Your task to perform on an android device: stop showing notifications on the lock screen Image 0: 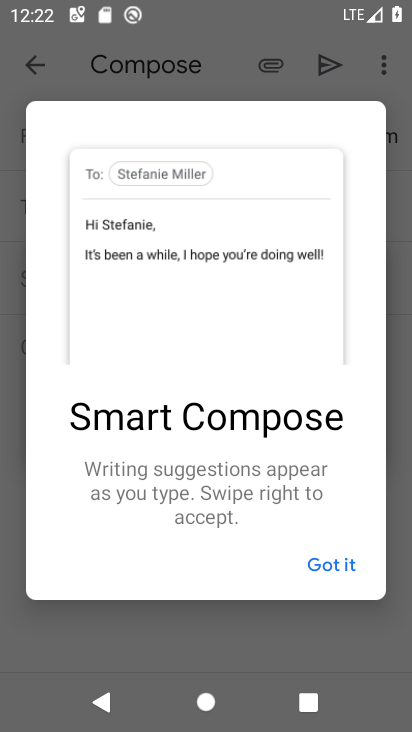
Step 0: press home button
Your task to perform on an android device: stop showing notifications on the lock screen Image 1: 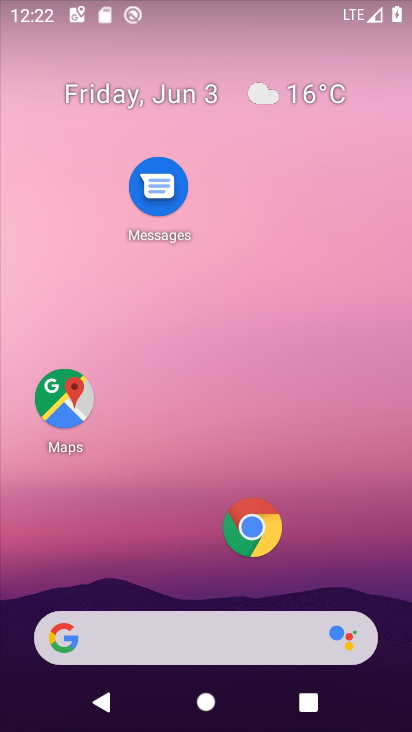
Step 1: drag from (208, 585) to (250, 53)
Your task to perform on an android device: stop showing notifications on the lock screen Image 2: 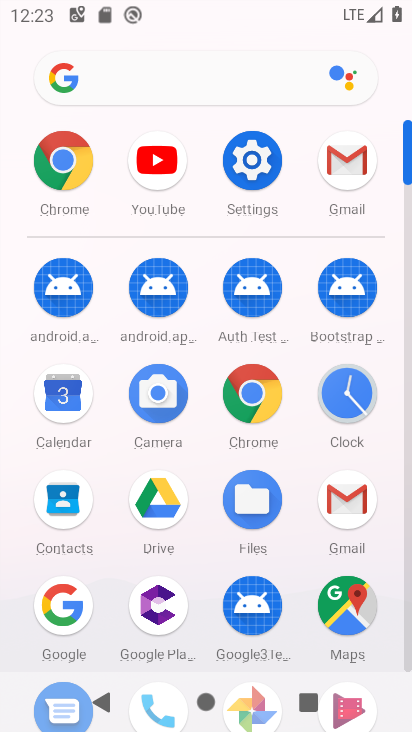
Step 2: click (252, 151)
Your task to perform on an android device: stop showing notifications on the lock screen Image 3: 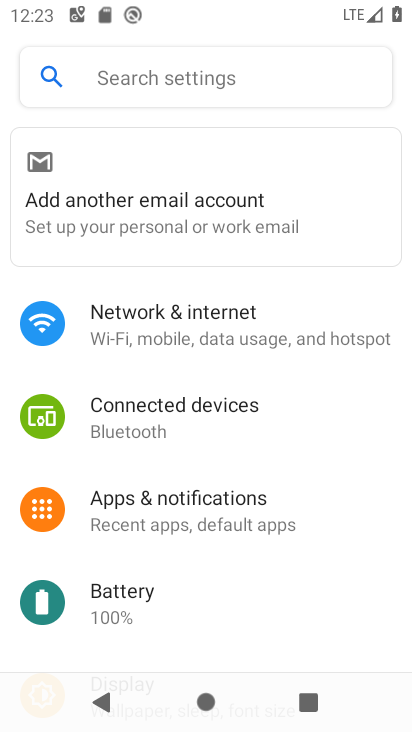
Step 3: click (282, 507)
Your task to perform on an android device: stop showing notifications on the lock screen Image 4: 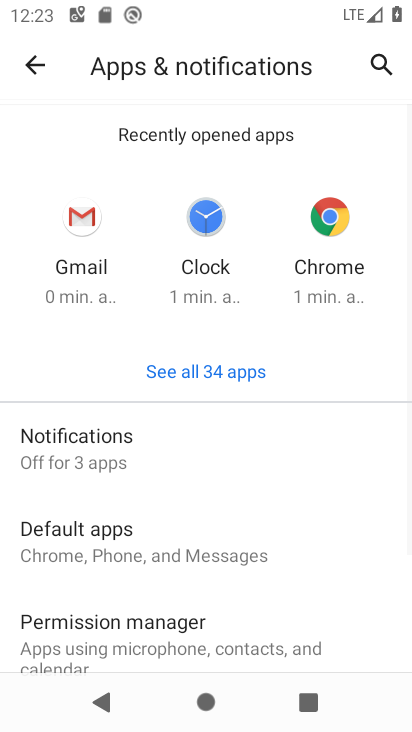
Step 4: click (148, 446)
Your task to perform on an android device: stop showing notifications on the lock screen Image 5: 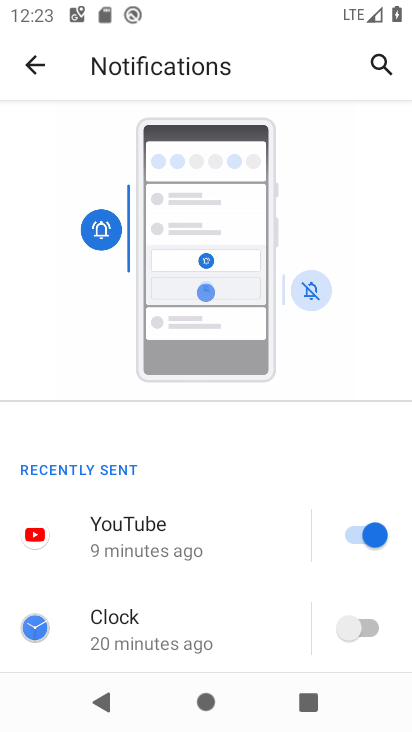
Step 5: drag from (239, 627) to (281, 114)
Your task to perform on an android device: stop showing notifications on the lock screen Image 6: 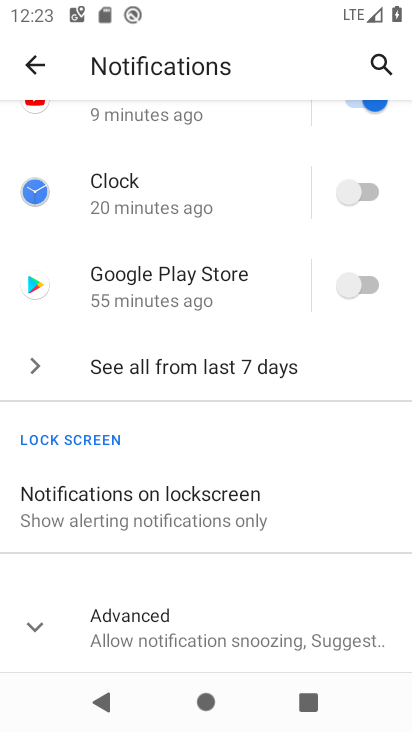
Step 6: click (282, 504)
Your task to perform on an android device: stop showing notifications on the lock screen Image 7: 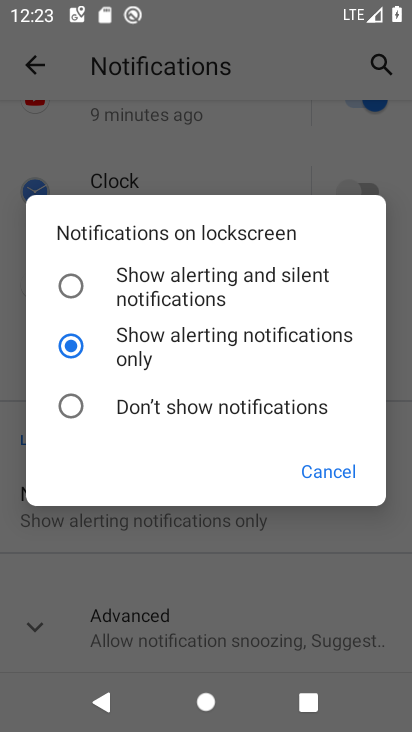
Step 7: click (71, 406)
Your task to perform on an android device: stop showing notifications on the lock screen Image 8: 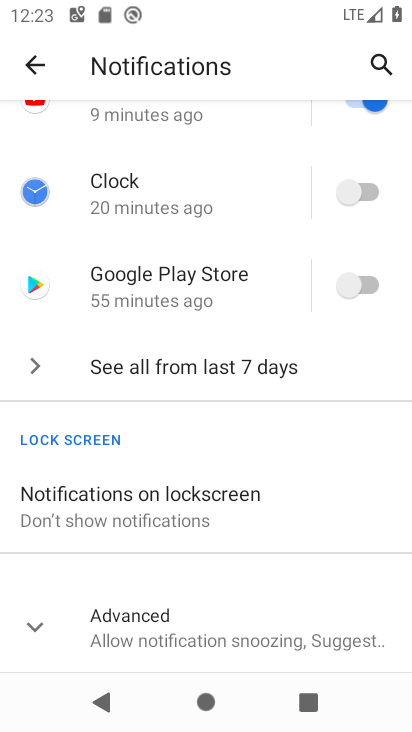
Step 8: task complete